Your task to perform on an android device: check data usage Image 0: 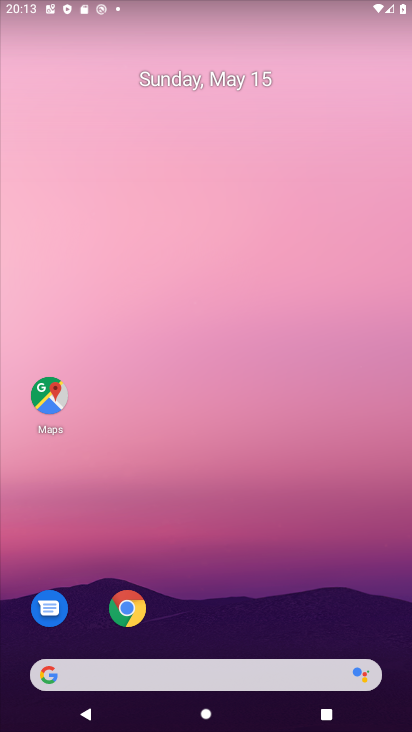
Step 0: drag from (276, 600) to (295, 47)
Your task to perform on an android device: check data usage Image 1: 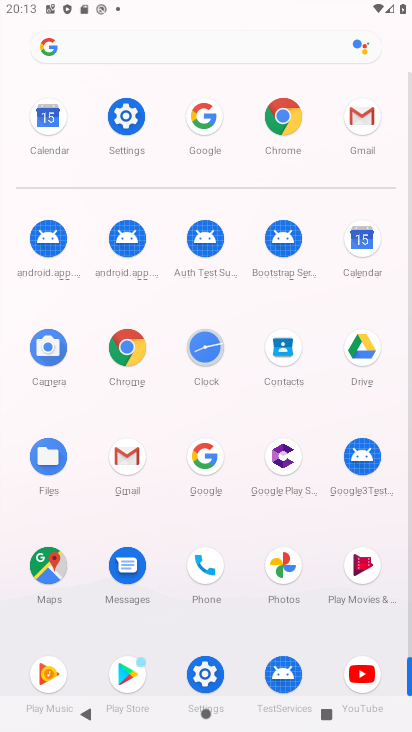
Step 1: click (115, 118)
Your task to perform on an android device: check data usage Image 2: 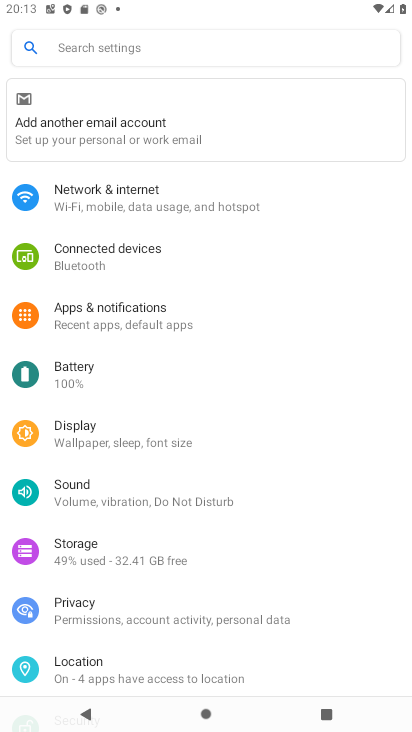
Step 2: click (119, 187)
Your task to perform on an android device: check data usage Image 3: 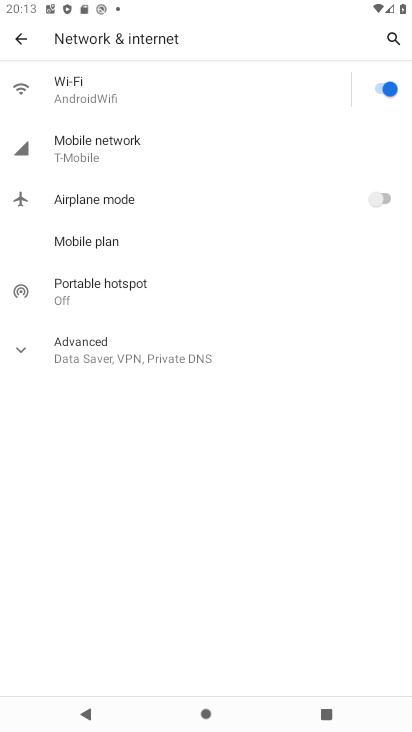
Step 3: click (119, 152)
Your task to perform on an android device: check data usage Image 4: 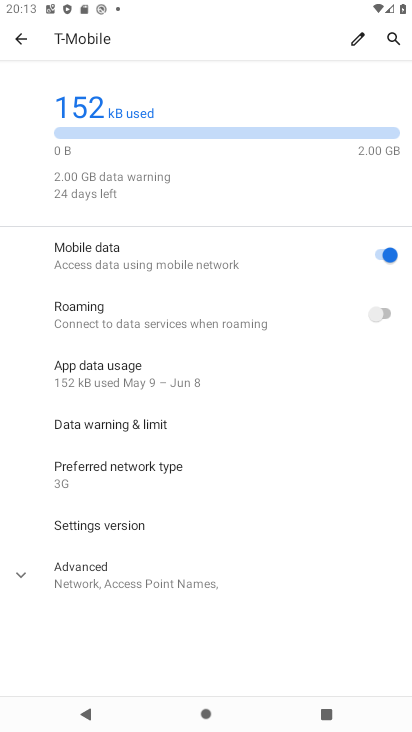
Step 4: task complete